Your task to perform on an android device: check battery use Image 0: 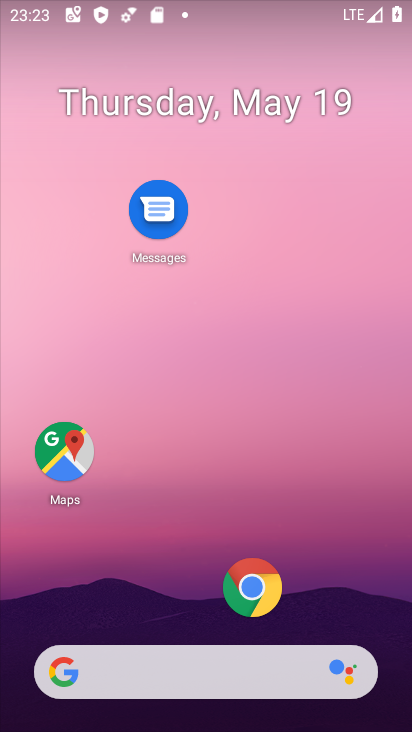
Step 0: drag from (181, 587) to (262, 57)
Your task to perform on an android device: check battery use Image 1: 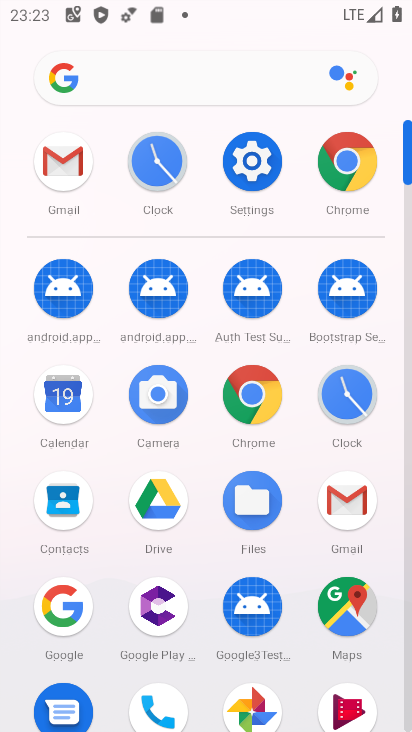
Step 1: click (257, 165)
Your task to perform on an android device: check battery use Image 2: 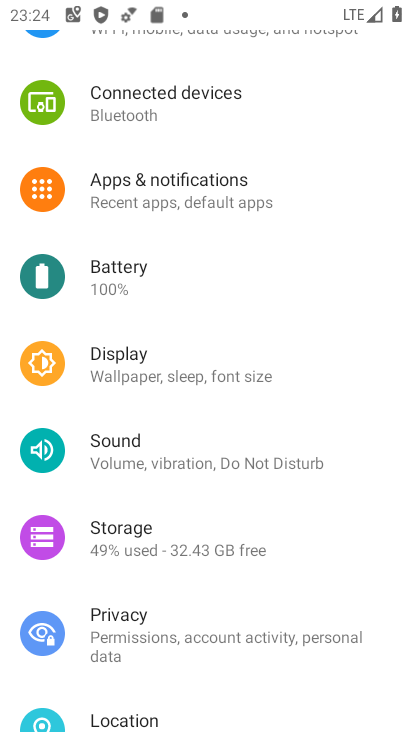
Step 2: click (147, 295)
Your task to perform on an android device: check battery use Image 3: 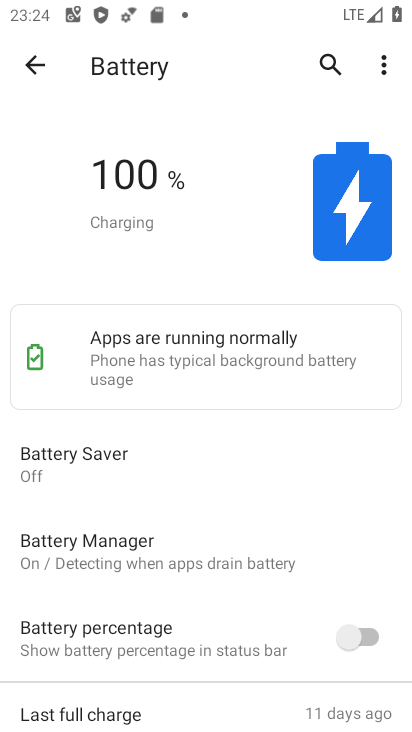
Step 3: click (389, 64)
Your task to perform on an android device: check battery use Image 4: 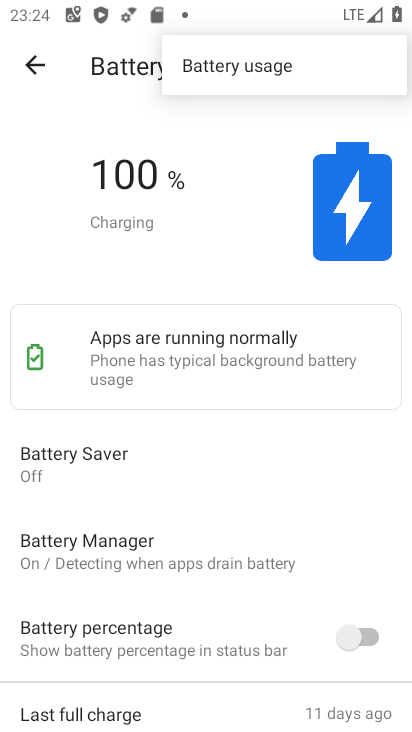
Step 4: click (317, 56)
Your task to perform on an android device: check battery use Image 5: 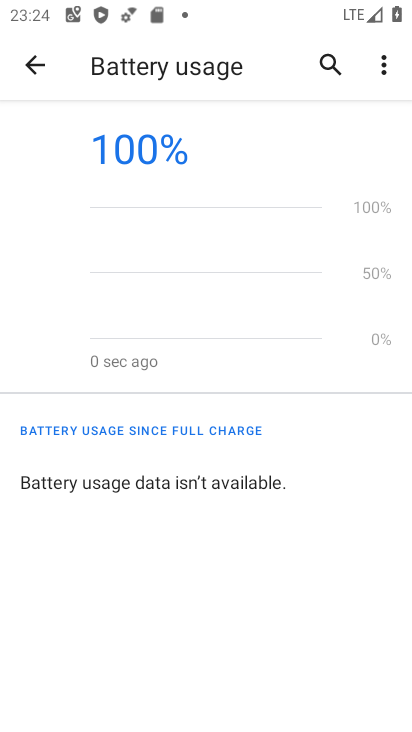
Step 5: task complete